Your task to perform on an android device: delete browsing data in the chrome app Image 0: 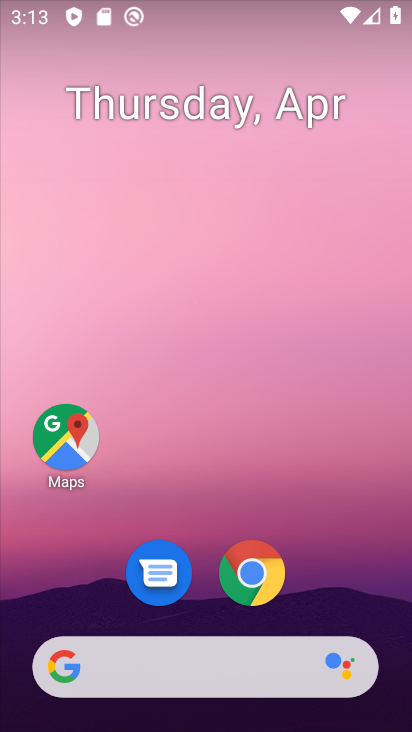
Step 0: click (267, 574)
Your task to perform on an android device: delete browsing data in the chrome app Image 1: 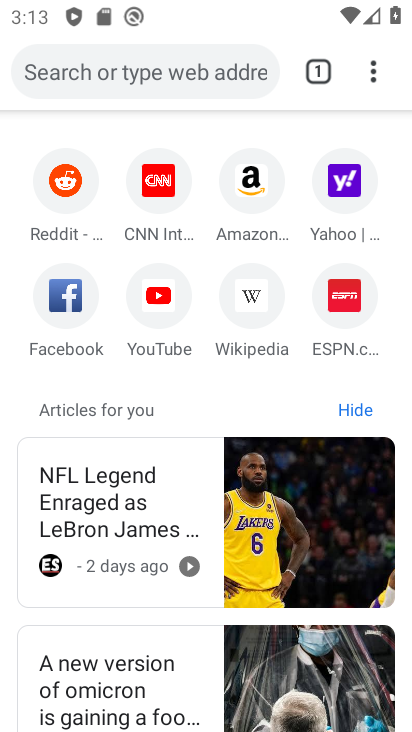
Step 1: click (373, 62)
Your task to perform on an android device: delete browsing data in the chrome app Image 2: 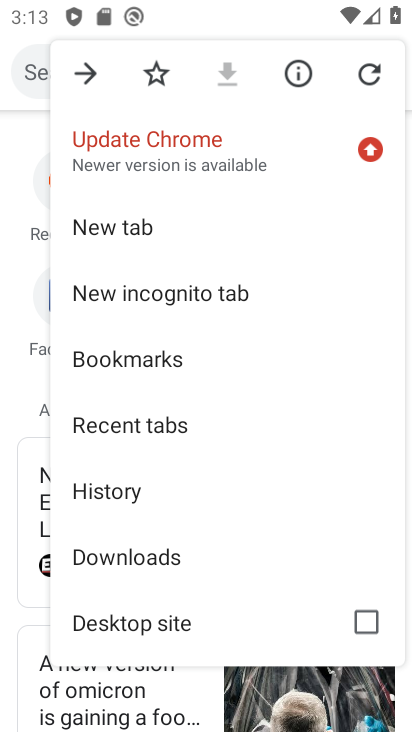
Step 2: click (184, 482)
Your task to perform on an android device: delete browsing data in the chrome app Image 3: 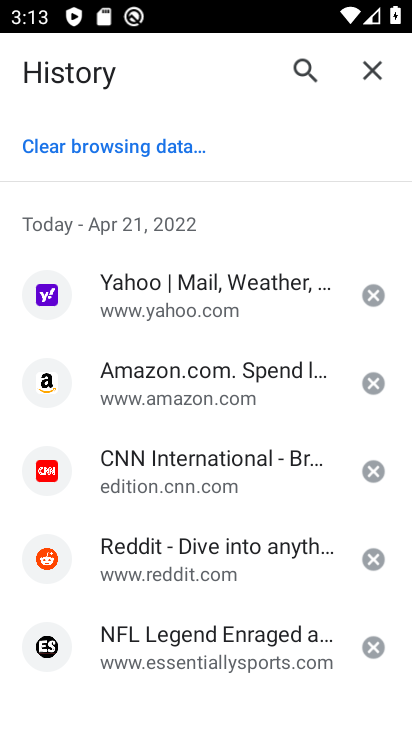
Step 3: click (91, 152)
Your task to perform on an android device: delete browsing data in the chrome app Image 4: 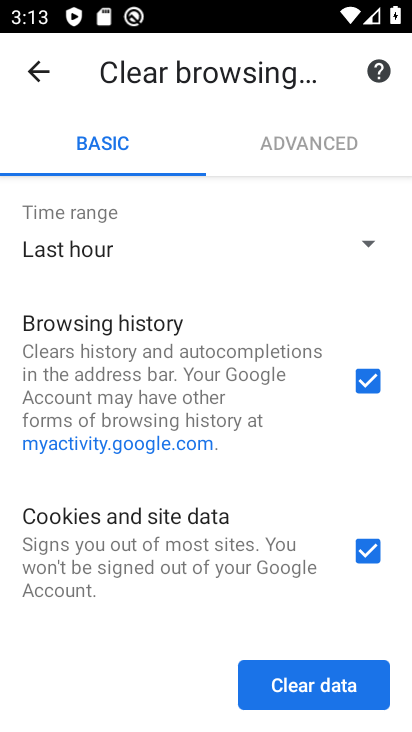
Step 4: click (296, 684)
Your task to perform on an android device: delete browsing data in the chrome app Image 5: 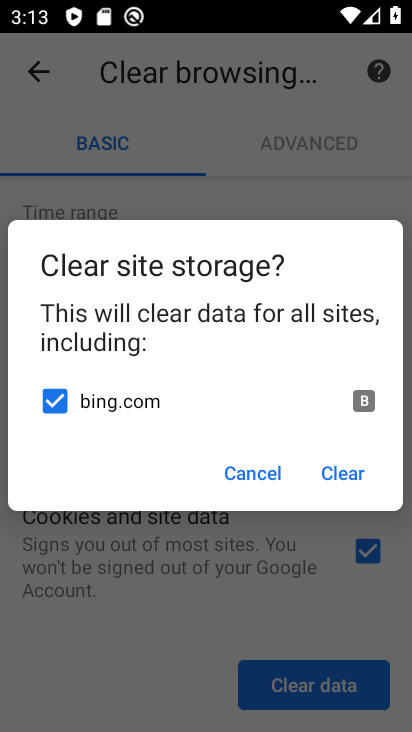
Step 5: click (338, 487)
Your task to perform on an android device: delete browsing data in the chrome app Image 6: 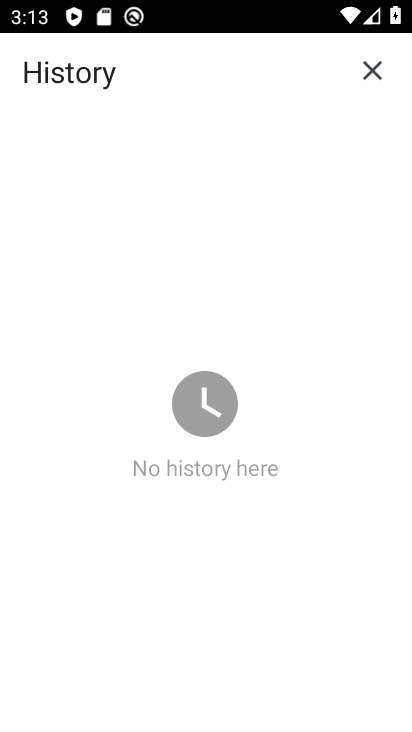
Step 6: task complete